Your task to perform on an android device: What's on my calendar today? Image 0: 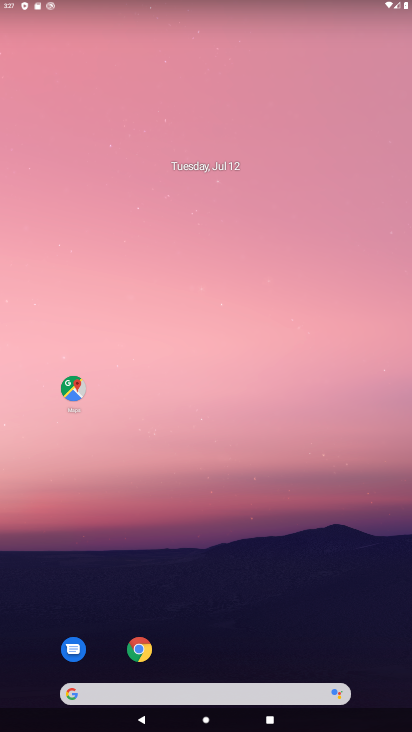
Step 0: drag from (179, 661) to (332, 211)
Your task to perform on an android device: What's on my calendar today? Image 1: 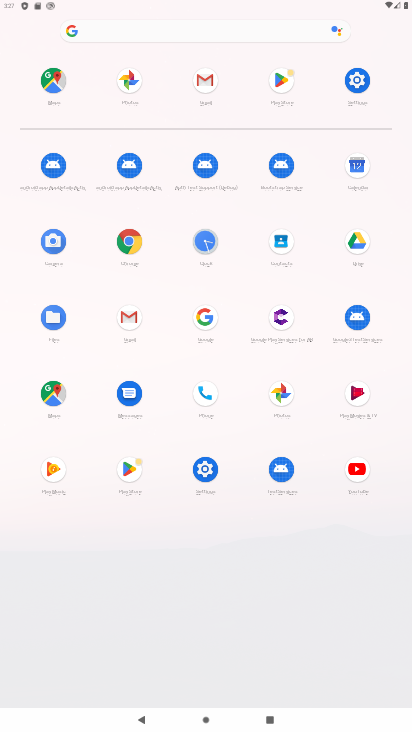
Step 1: click (350, 175)
Your task to perform on an android device: What's on my calendar today? Image 2: 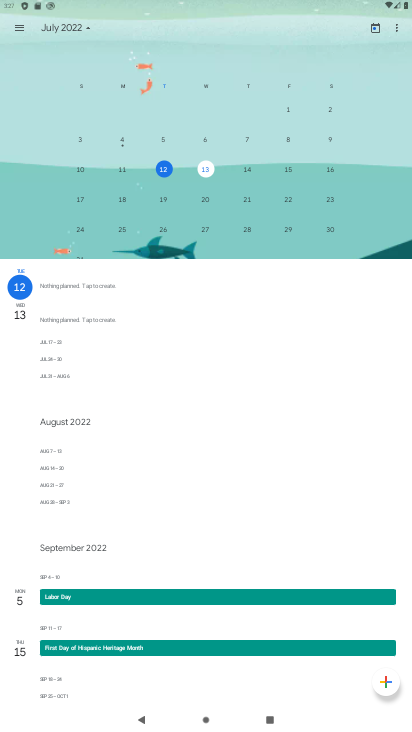
Step 2: task complete